Your task to perform on an android device: Search for "logitech g933" on walmart.com, select the first entry, and add it to the cart. Image 0: 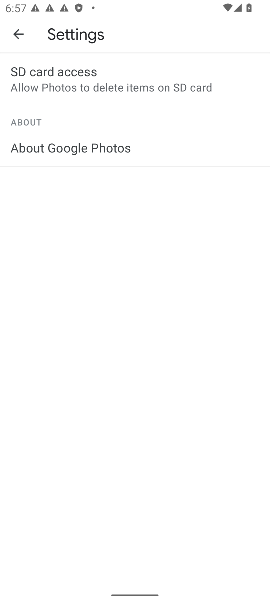
Step 0: press home button
Your task to perform on an android device: Search for "logitech g933" on walmart.com, select the first entry, and add it to the cart. Image 1: 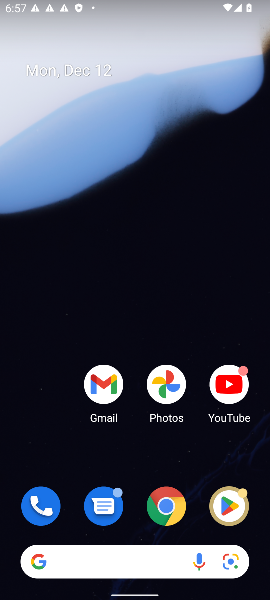
Step 1: click (141, 557)
Your task to perform on an android device: Search for "logitech g933" on walmart.com, select the first entry, and add it to the cart. Image 2: 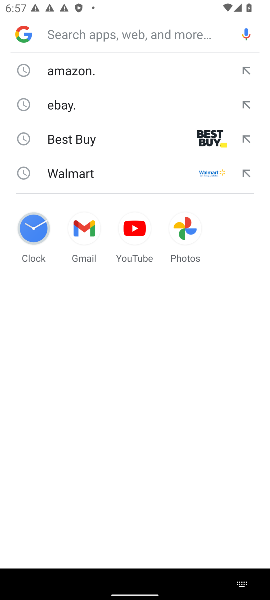
Step 2: click (55, 171)
Your task to perform on an android device: Search for "logitech g933" on walmart.com, select the first entry, and add it to the cart. Image 3: 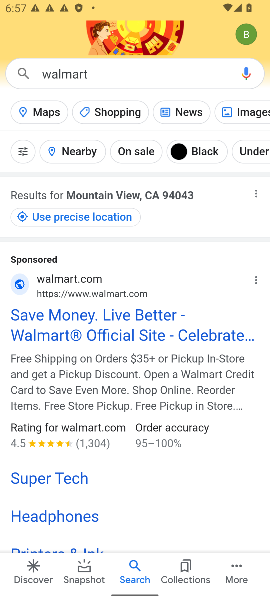
Step 3: click (103, 325)
Your task to perform on an android device: Search for "logitech g933" on walmart.com, select the first entry, and add it to the cart. Image 4: 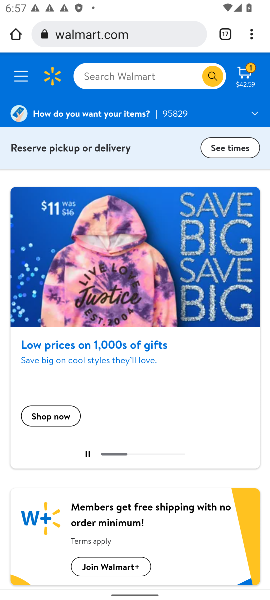
Step 4: click (107, 81)
Your task to perform on an android device: Search for "logitech g933" on walmart.com, select the first entry, and add it to the cart. Image 5: 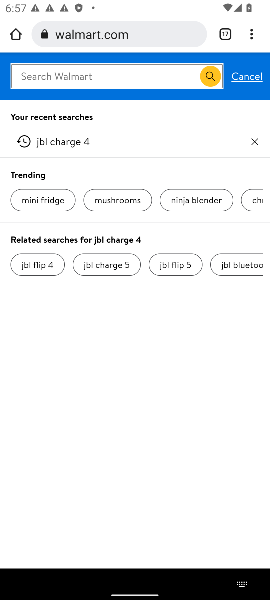
Step 5: type "logitech g933"
Your task to perform on an android device: Search for "logitech g933" on walmart.com, select the first entry, and add it to the cart. Image 6: 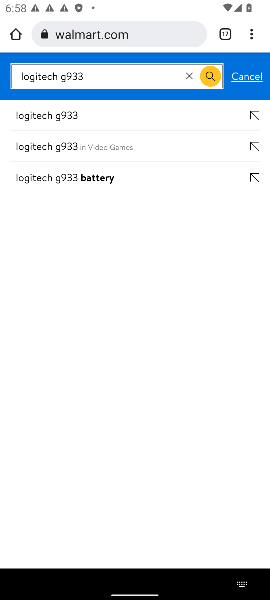
Step 6: click (53, 122)
Your task to perform on an android device: Search for "logitech g933" on walmart.com, select the first entry, and add it to the cart. Image 7: 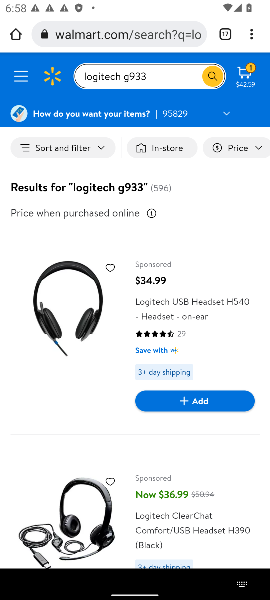
Step 7: click (197, 405)
Your task to perform on an android device: Search for "logitech g933" on walmart.com, select the first entry, and add it to the cart. Image 8: 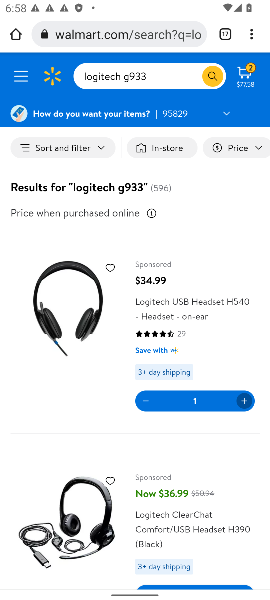
Step 8: task complete